Your task to perform on an android device: add a contact Image 0: 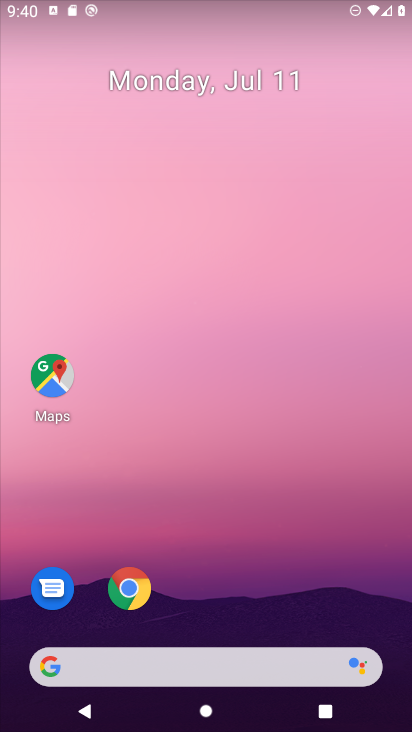
Step 0: drag from (340, 610) to (368, 30)
Your task to perform on an android device: add a contact Image 1: 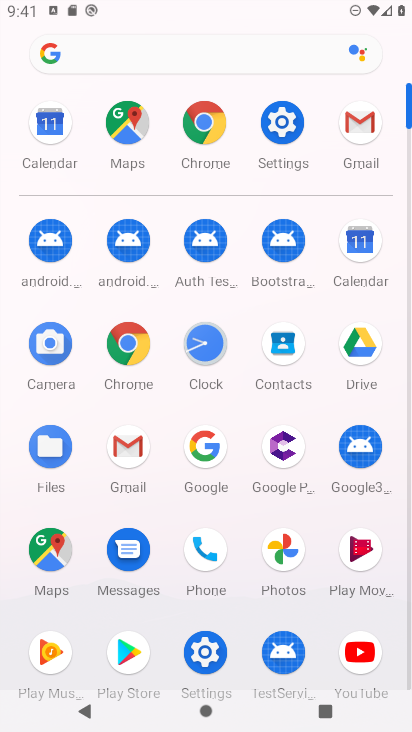
Step 1: click (273, 348)
Your task to perform on an android device: add a contact Image 2: 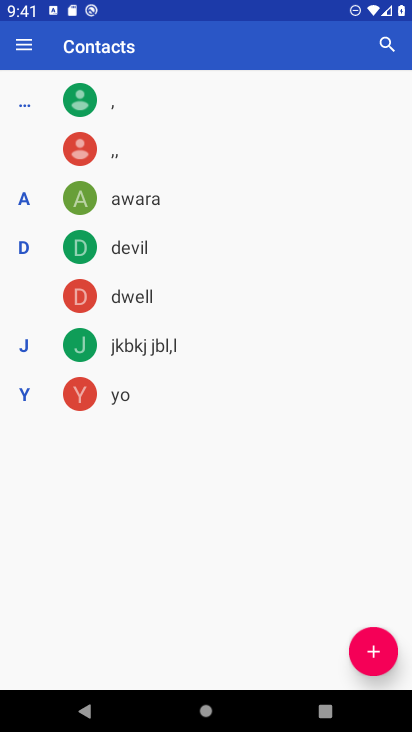
Step 2: click (381, 655)
Your task to perform on an android device: add a contact Image 3: 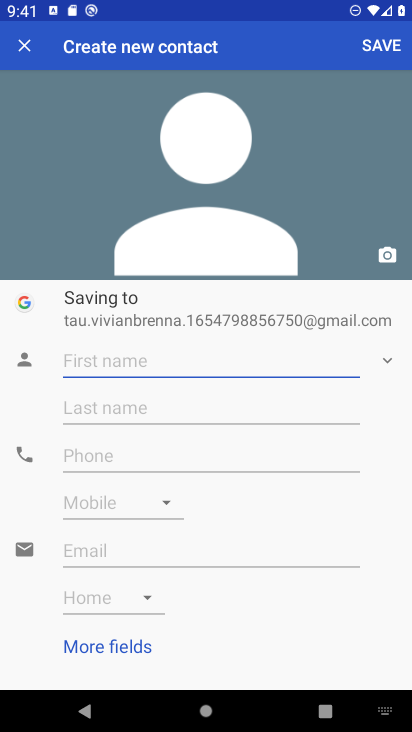
Step 3: type "farooq"
Your task to perform on an android device: add a contact Image 4: 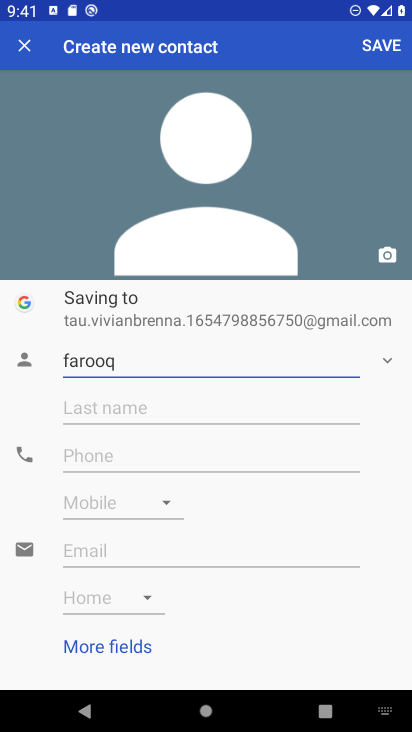
Step 4: click (373, 52)
Your task to perform on an android device: add a contact Image 5: 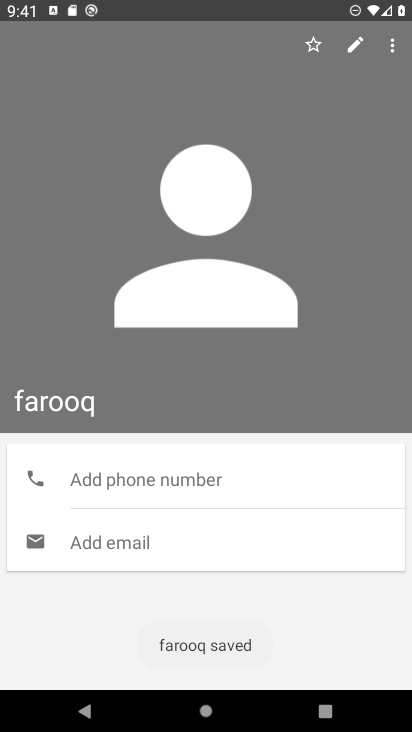
Step 5: task complete